Your task to perform on an android device: find snoozed emails in the gmail app Image 0: 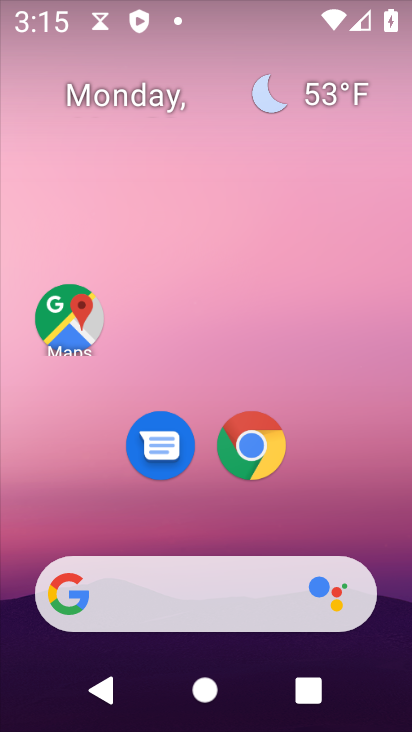
Step 0: drag from (210, 388) to (250, 92)
Your task to perform on an android device: find snoozed emails in the gmail app Image 1: 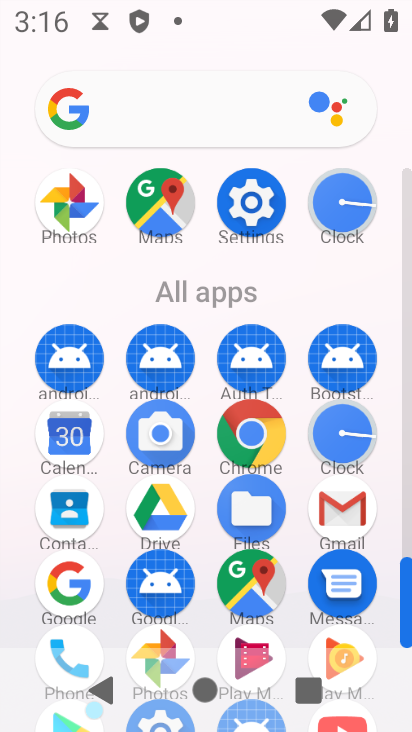
Step 1: click (336, 491)
Your task to perform on an android device: find snoozed emails in the gmail app Image 2: 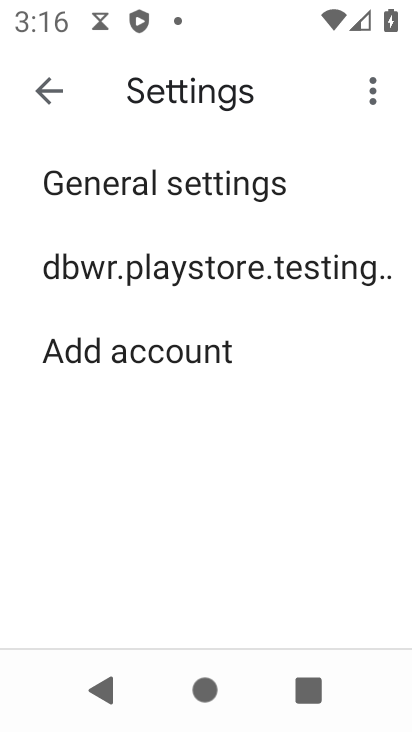
Step 2: click (25, 91)
Your task to perform on an android device: find snoozed emails in the gmail app Image 3: 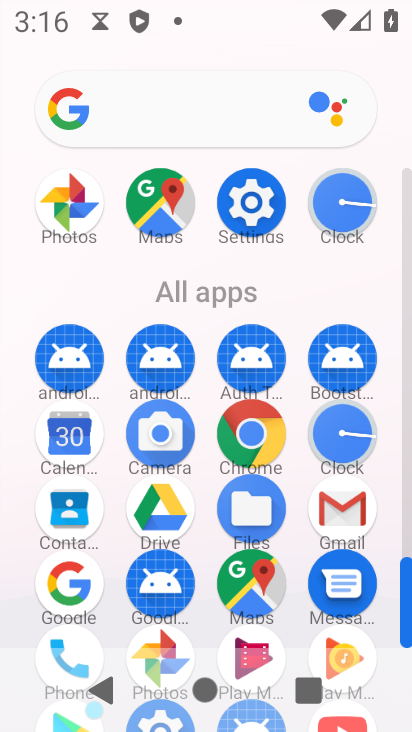
Step 3: click (373, 499)
Your task to perform on an android device: find snoozed emails in the gmail app Image 4: 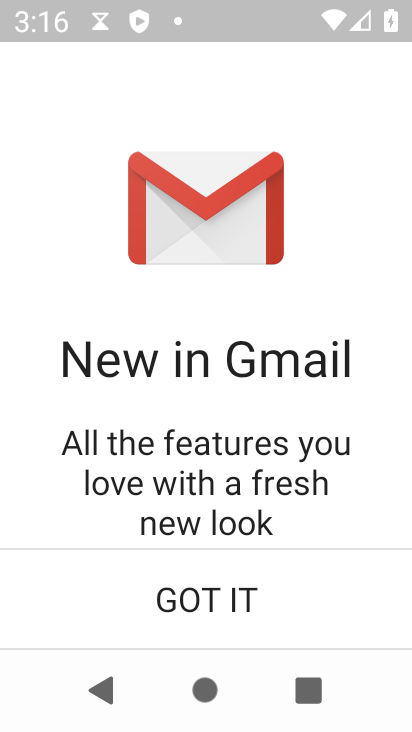
Step 4: click (237, 598)
Your task to perform on an android device: find snoozed emails in the gmail app Image 5: 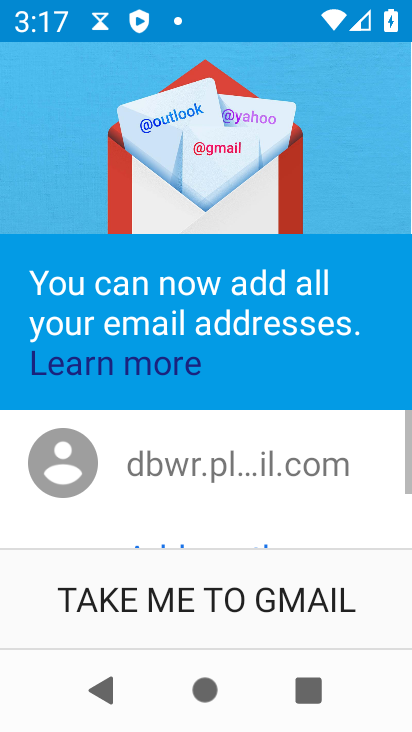
Step 5: click (244, 604)
Your task to perform on an android device: find snoozed emails in the gmail app Image 6: 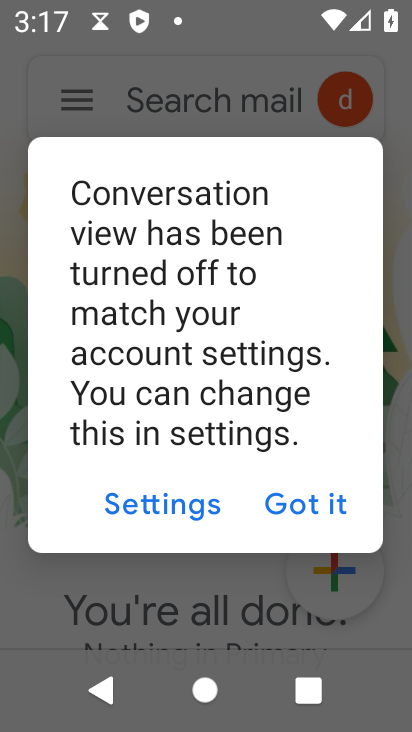
Step 6: click (309, 506)
Your task to perform on an android device: find snoozed emails in the gmail app Image 7: 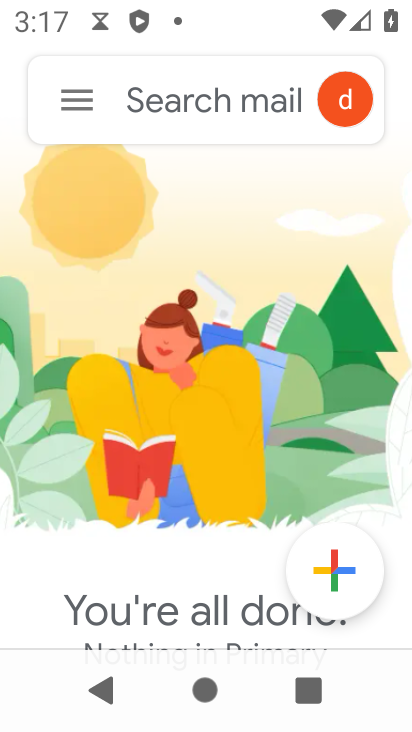
Step 7: click (76, 84)
Your task to perform on an android device: find snoozed emails in the gmail app Image 8: 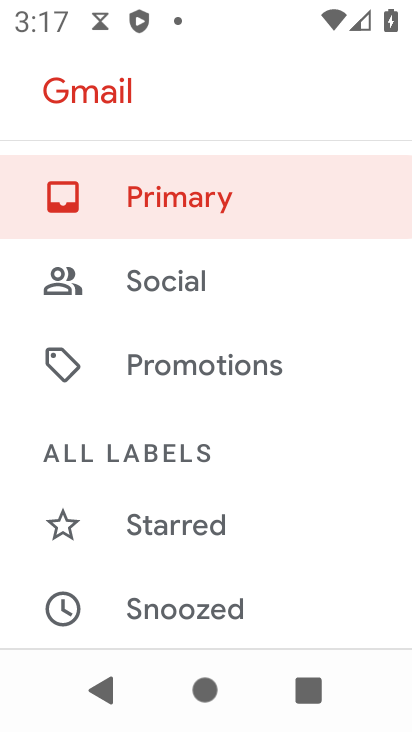
Step 8: drag from (189, 553) to (229, 214)
Your task to perform on an android device: find snoozed emails in the gmail app Image 9: 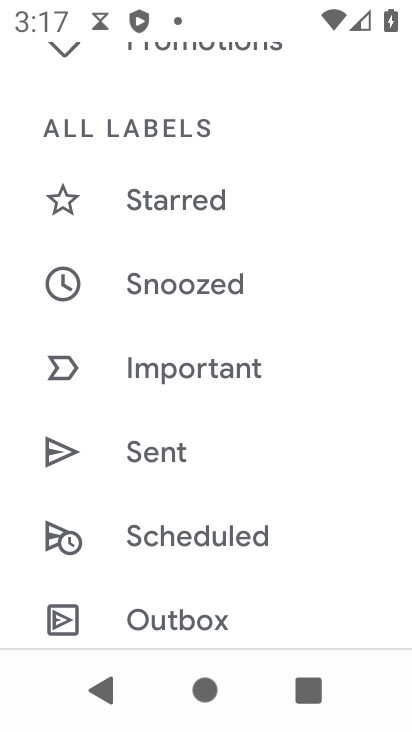
Step 9: drag from (173, 530) to (178, 177)
Your task to perform on an android device: find snoozed emails in the gmail app Image 10: 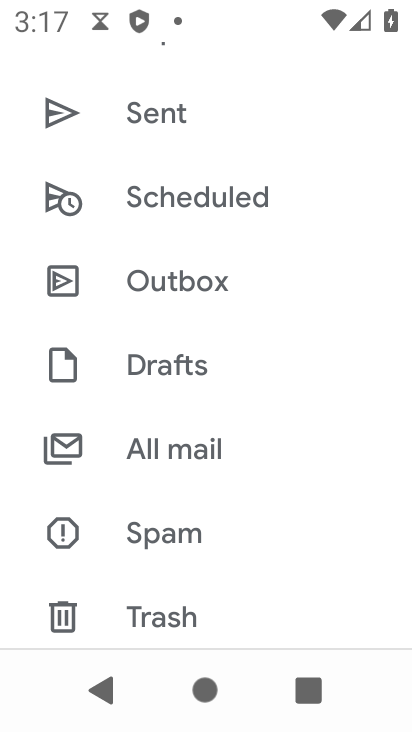
Step 10: drag from (178, 177) to (174, 502)
Your task to perform on an android device: find snoozed emails in the gmail app Image 11: 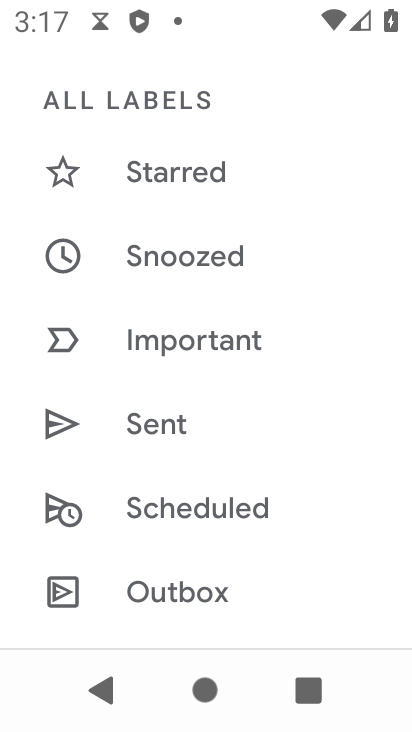
Step 11: click (192, 269)
Your task to perform on an android device: find snoozed emails in the gmail app Image 12: 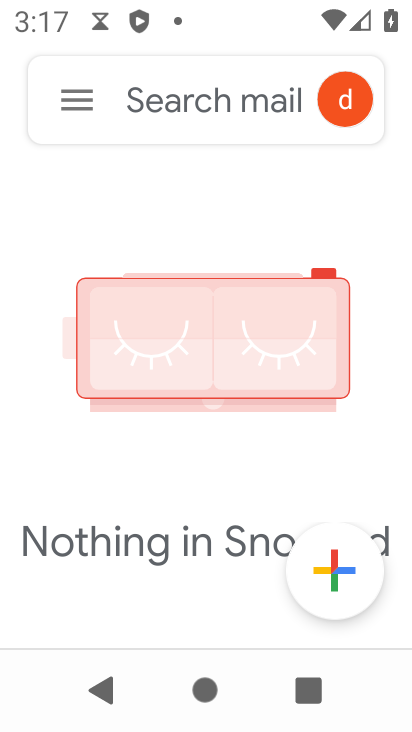
Step 12: task complete